Your task to perform on an android device: View the shopping cart on target.com. Image 0: 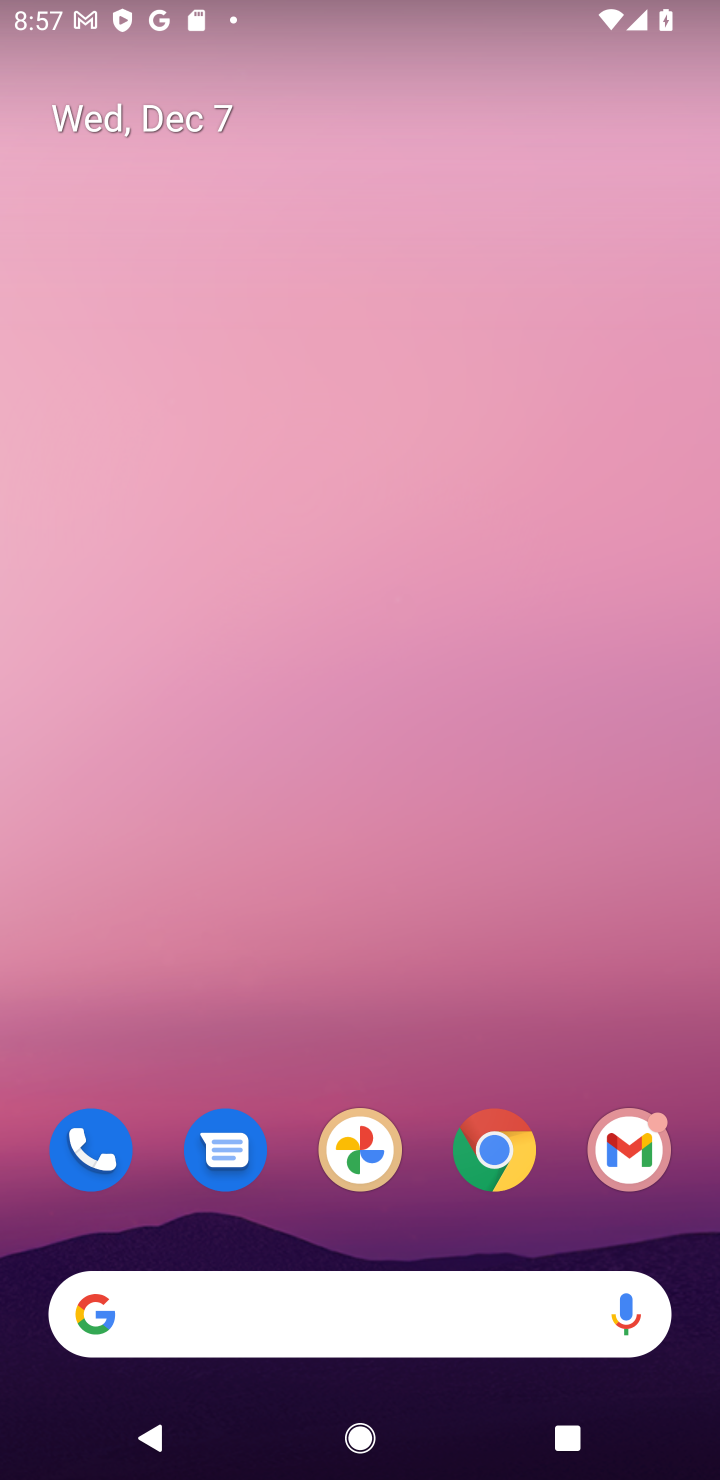
Step 0: click (509, 1153)
Your task to perform on an android device: View the shopping cart on target.com. Image 1: 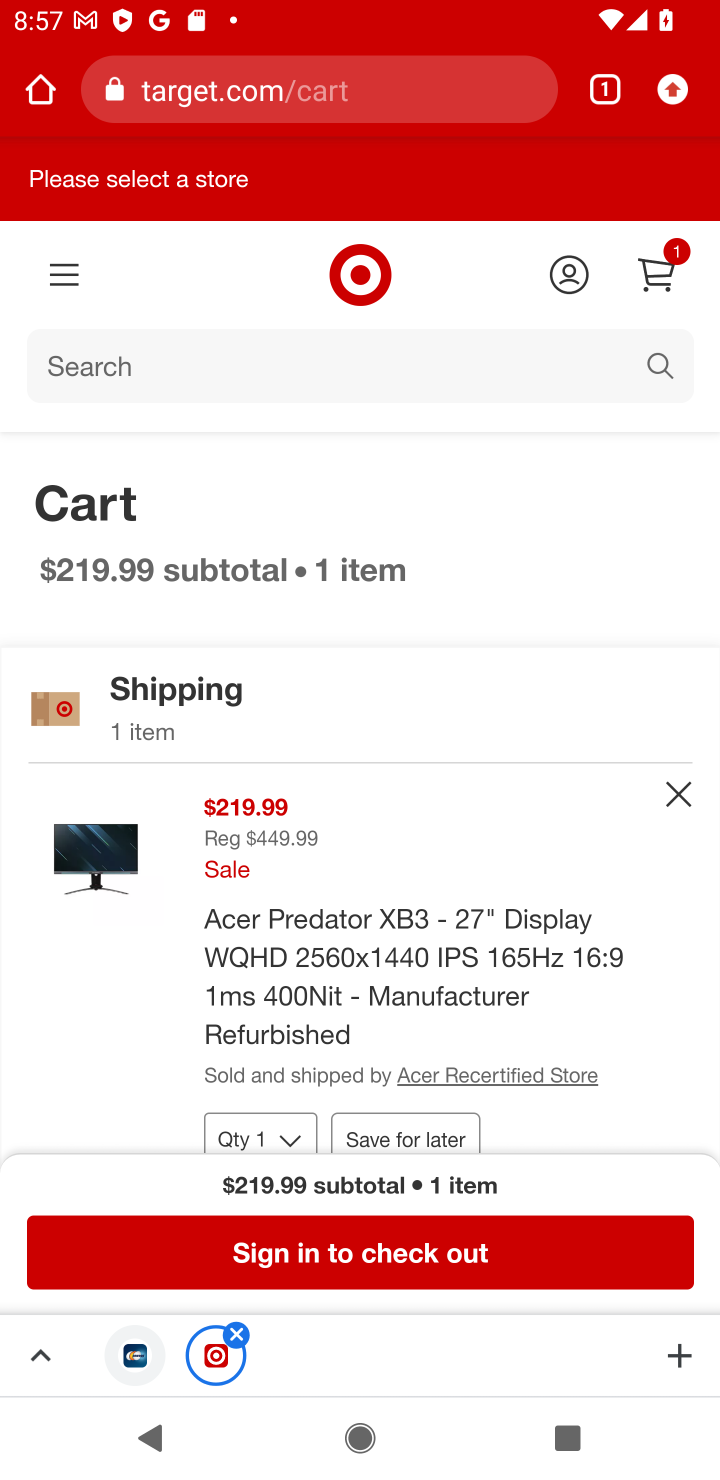
Step 1: click (662, 283)
Your task to perform on an android device: View the shopping cart on target.com. Image 2: 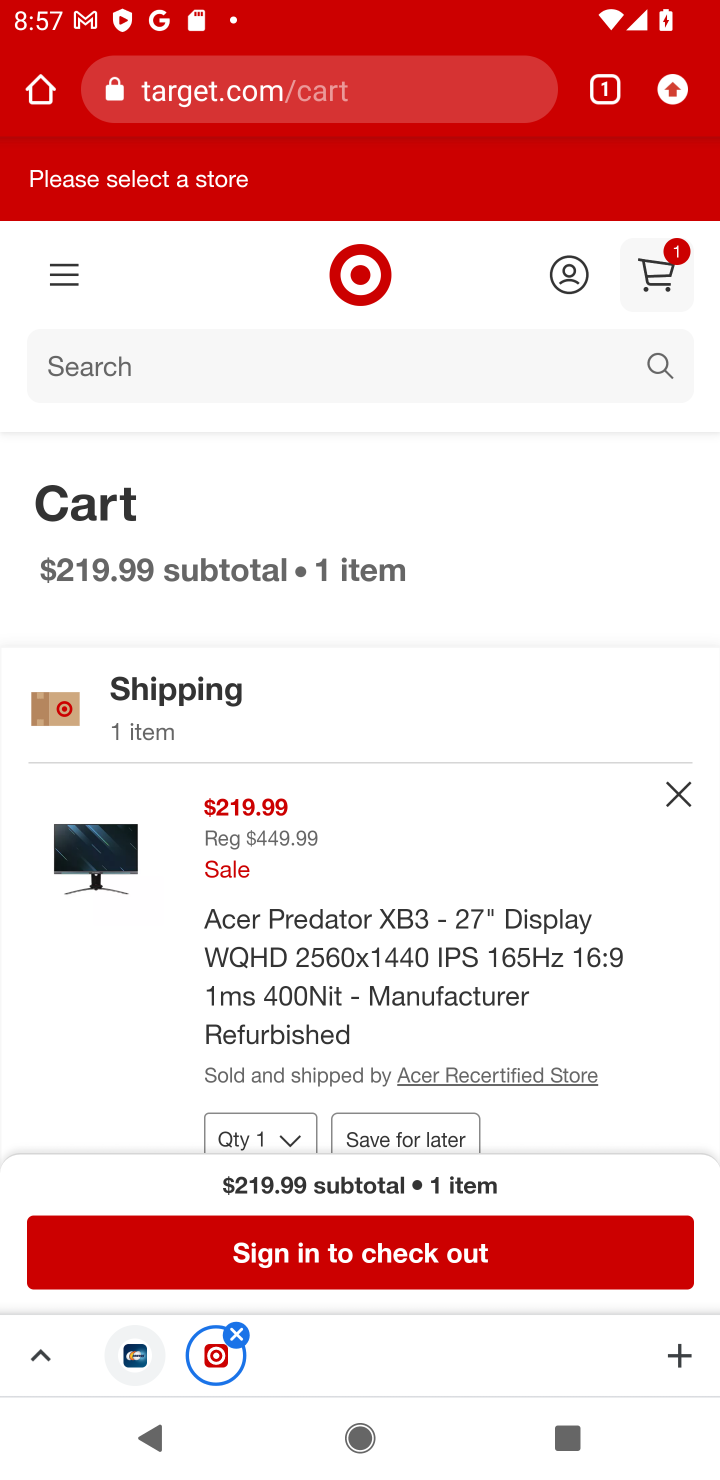
Step 2: task complete